Your task to perform on an android device: toggle pop-ups in chrome Image 0: 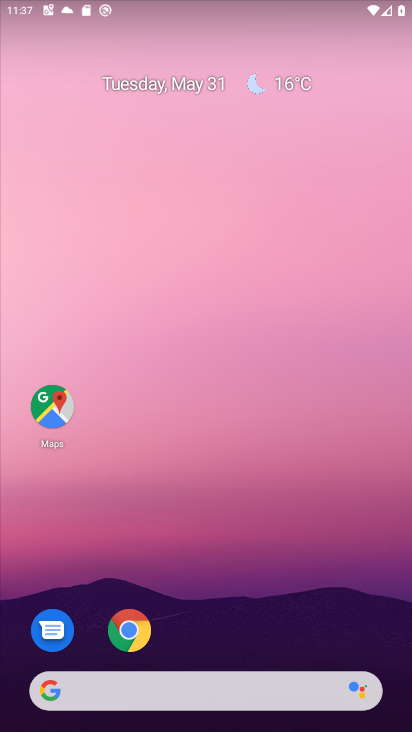
Step 0: click (134, 630)
Your task to perform on an android device: toggle pop-ups in chrome Image 1: 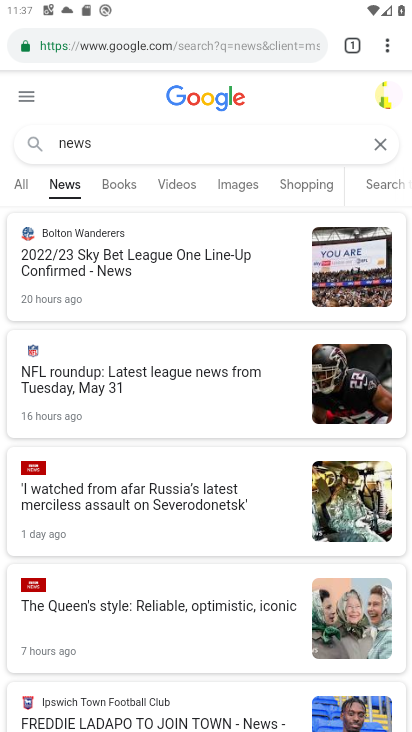
Step 1: drag from (387, 43) to (275, 509)
Your task to perform on an android device: toggle pop-ups in chrome Image 2: 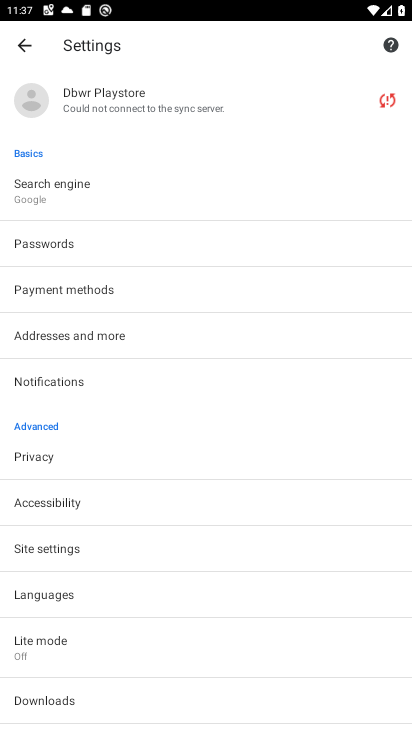
Step 2: click (105, 540)
Your task to perform on an android device: toggle pop-ups in chrome Image 3: 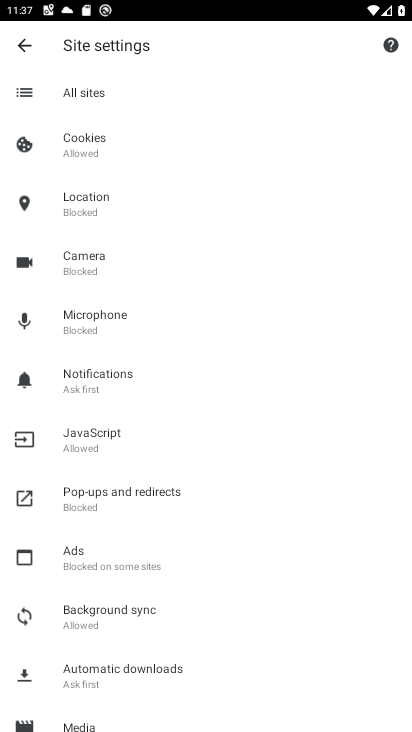
Step 3: click (137, 492)
Your task to perform on an android device: toggle pop-ups in chrome Image 4: 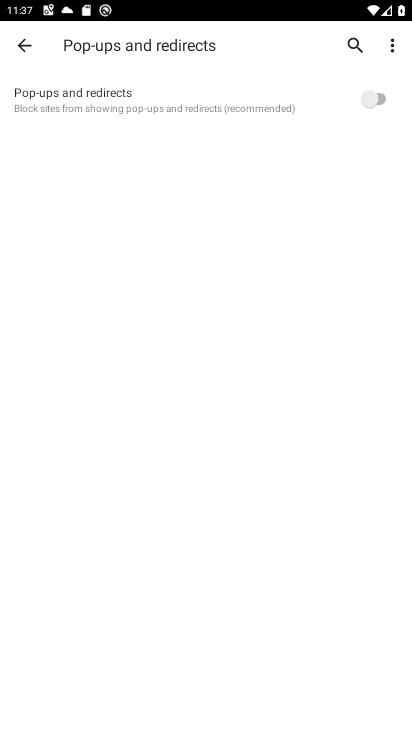
Step 4: click (378, 100)
Your task to perform on an android device: toggle pop-ups in chrome Image 5: 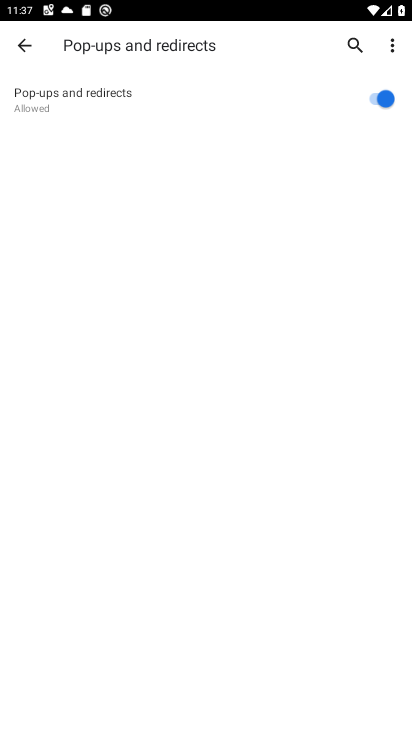
Step 5: task complete